Your task to perform on an android device: move an email to a new category in the gmail app Image 0: 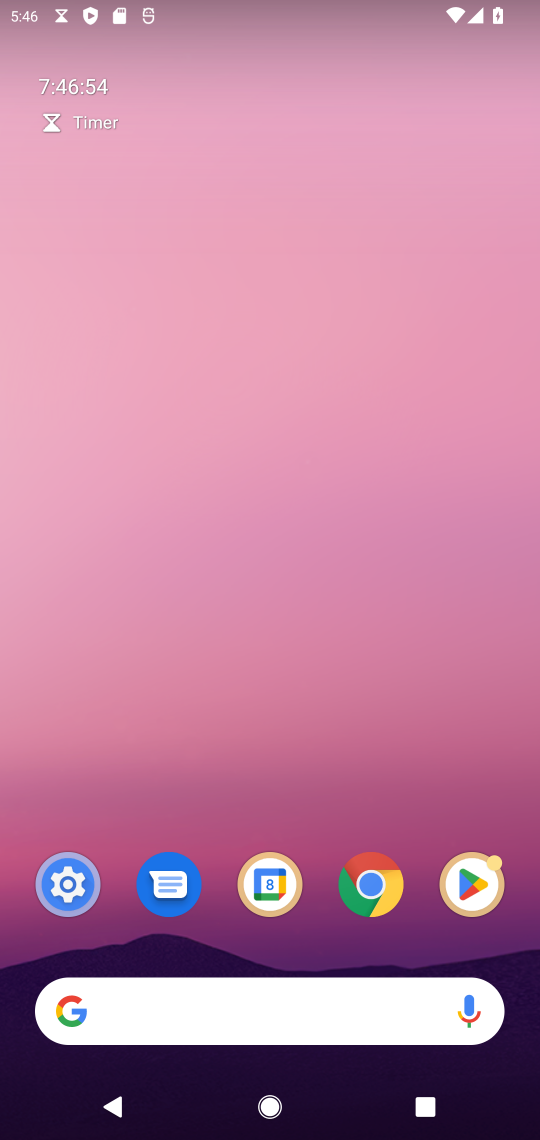
Step 0: drag from (421, 836) to (384, 150)
Your task to perform on an android device: move an email to a new category in the gmail app Image 1: 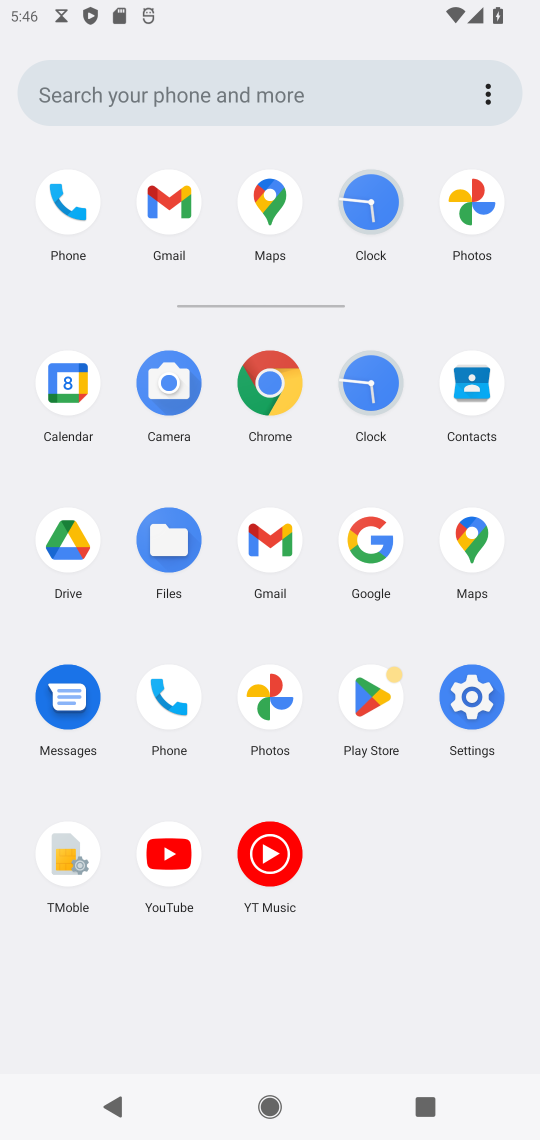
Step 1: click (159, 220)
Your task to perform on an android device: move an email to a new category in the gmail app Image 2: 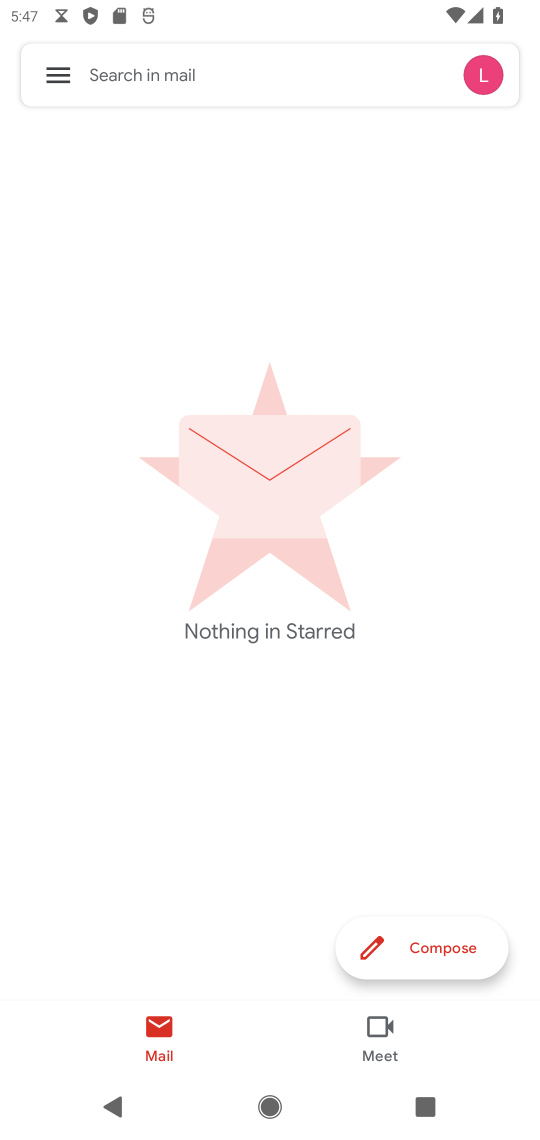
Step 2: click (65, 82)
Your task to perform on an android device: move an email to a new category in the gmail app Image 3: 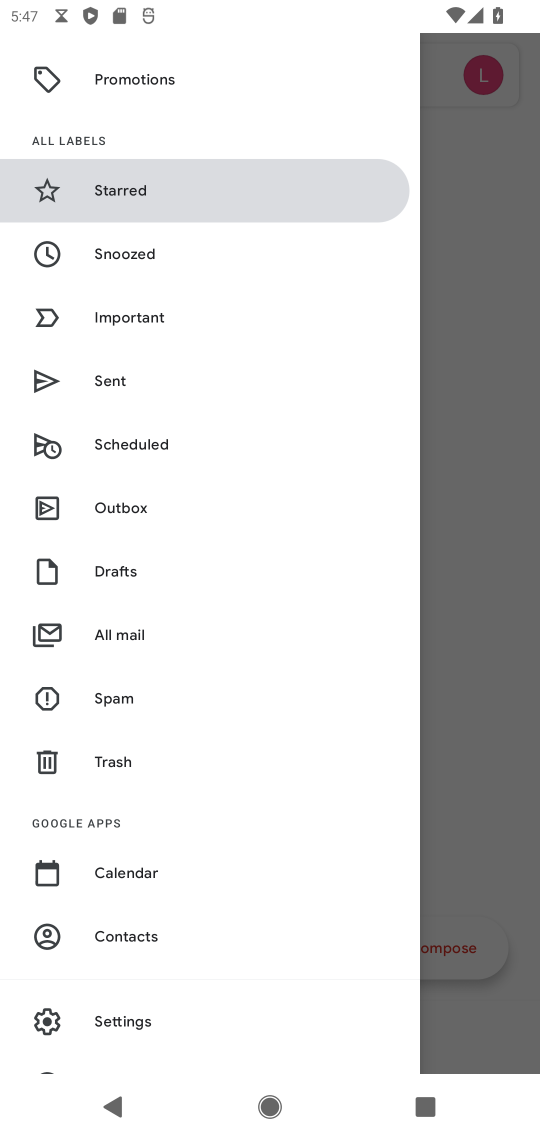
Step 3: click (125, 634)
Your task to perform on an android device: move an email to a new category in the gmail app Image 4: 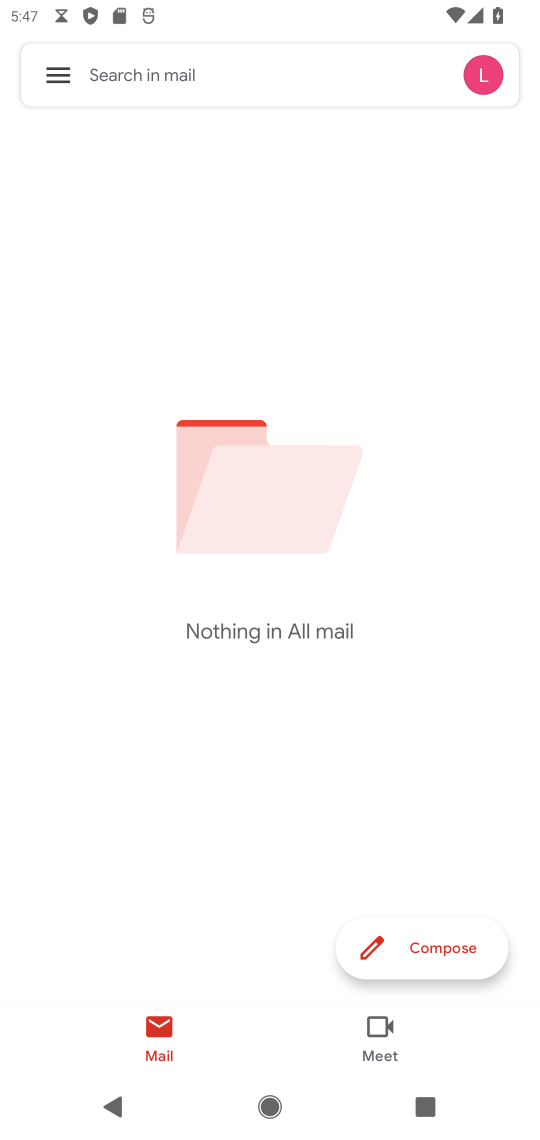
Step 4: task complete